Your task to perform on an android device: What's the weather going to be this weekend? Image 0: 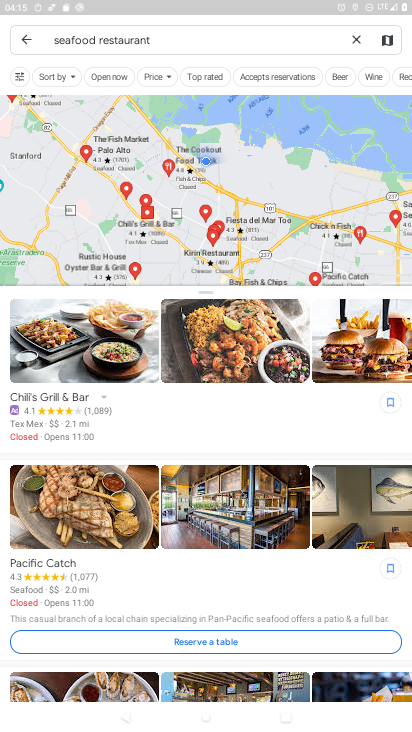
Step 0: press home button
Your task to perform on an android device: What's the weather going to be this weekend? Image 1: 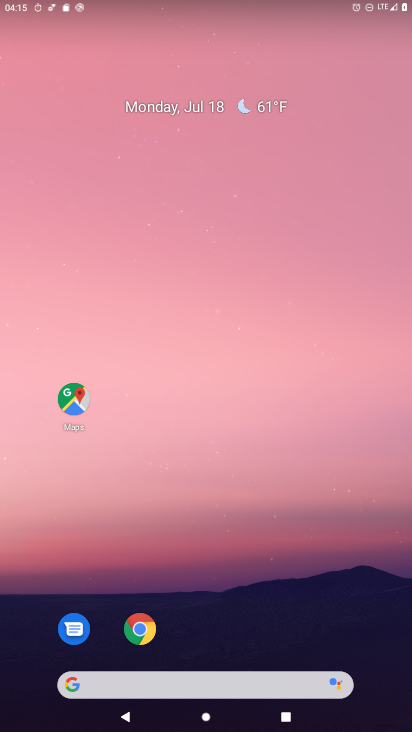
Step 1: drag from (225, 686) to (246, 104)
Your task to perform on an android device: What's the weather going to be this weekend? Image 2: 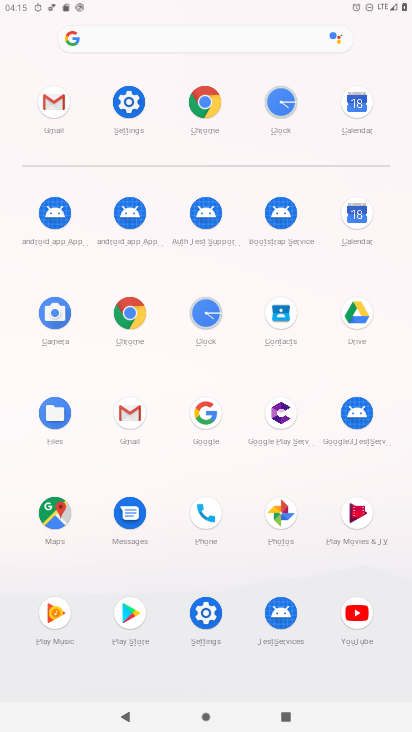
Step 2: click (203, 412)
Your task to perform on an android device: What's the weather going to be this weekend? Image 3: 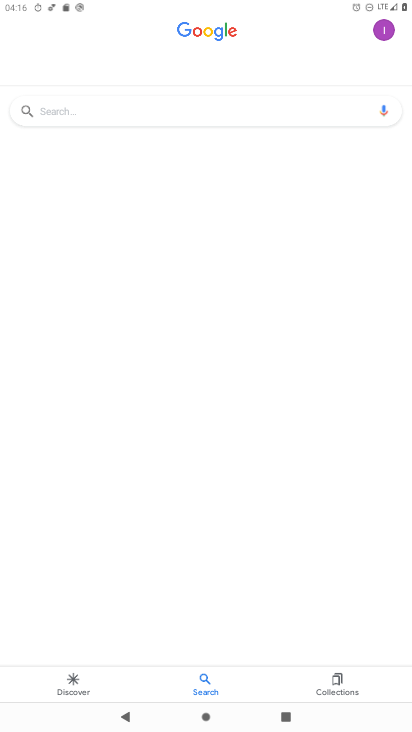
Step 3: click (223, 109)
Your task to perform on an android device: What's the weather going to be this weekend? Image 4: 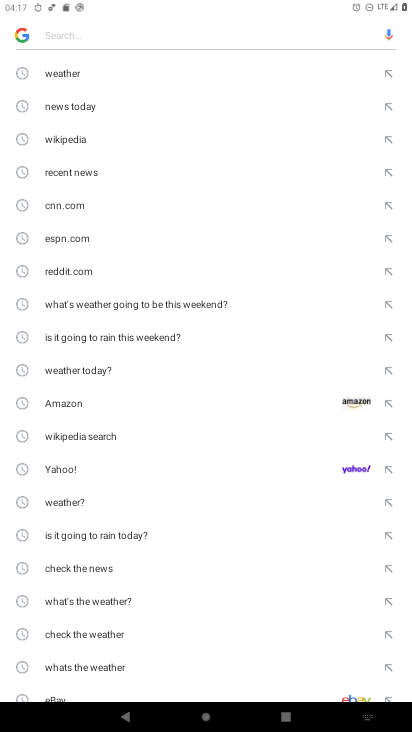
Step 4: type "What's the weather going to be this weekend?"
Your task to perform on an android device: What's the weather going to be this weekend? Image 5: 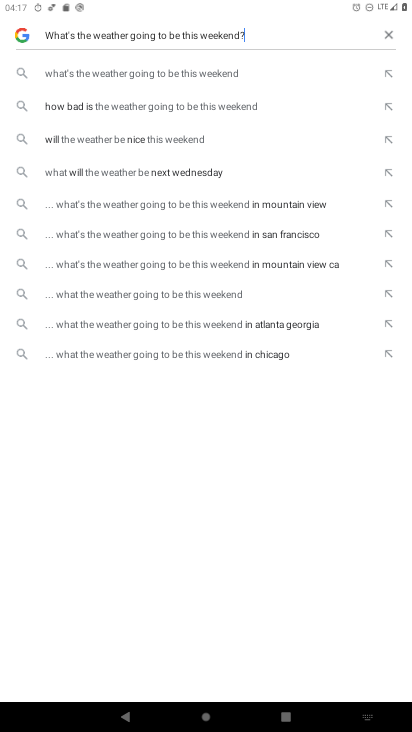
Step 5: click (100, 75)
Your task to perform on an android device: What's the weather going to be this weekend? Image 6: 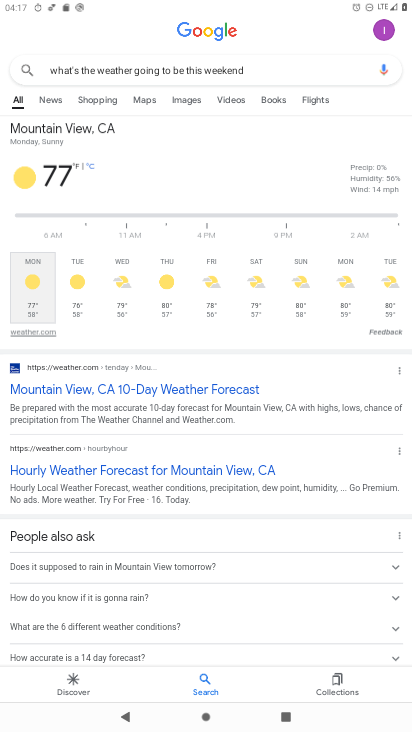
Step 6: click (247, 304)
Your task to perform on an android device: What's the weather going to be this weekend? Image 7: 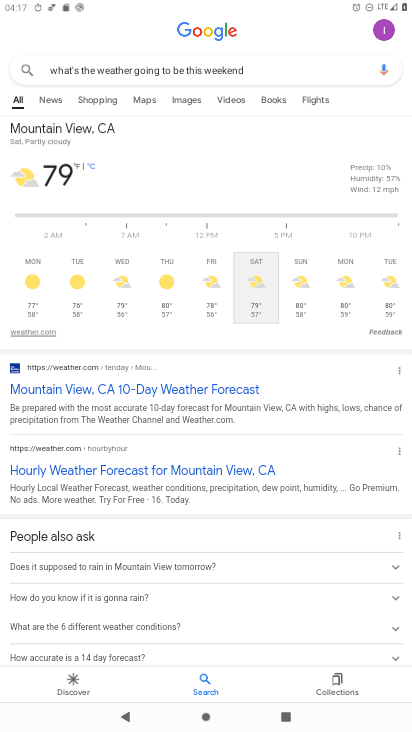
Step 7: task complete